Your task to perform on an android device: Turn off the flashlight Image 0: 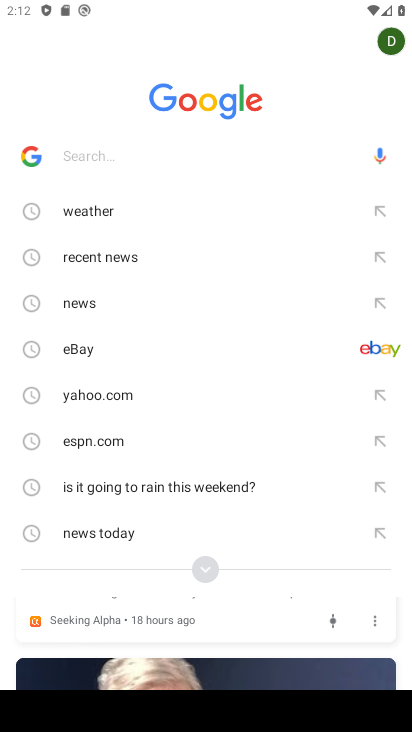
Step 0: press home button
Your task to perform on an android device: Turn off the flashlight Image 1: 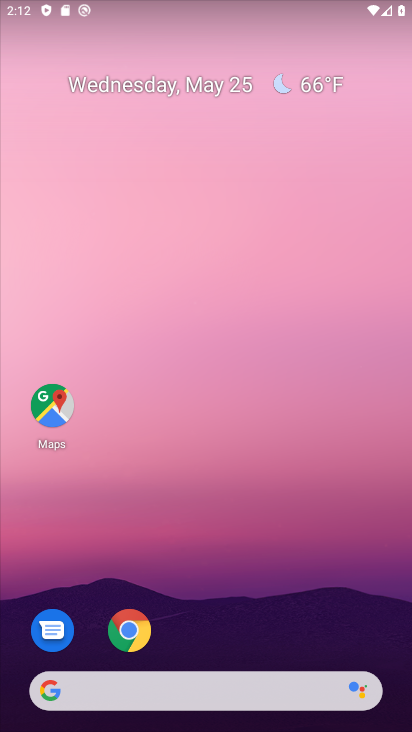
Step 1: drag from (212, 504) to (281, 77)
Your task to perform on an android device: Turn off the flashlight Image 2: 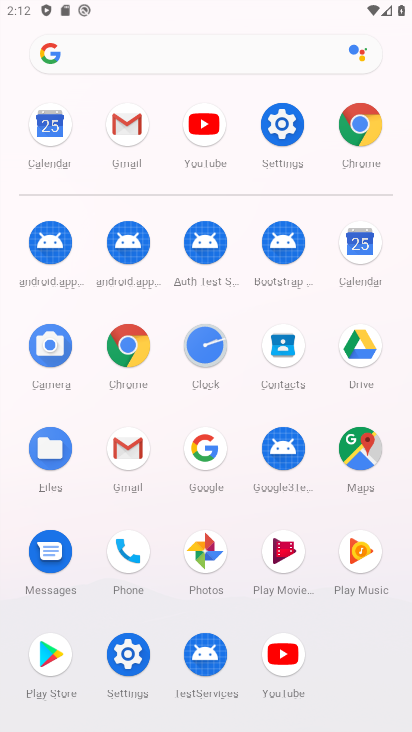
Step 2: click (280, 127)
Your task to perform on an android device: Turn off the flashlight Image 3: 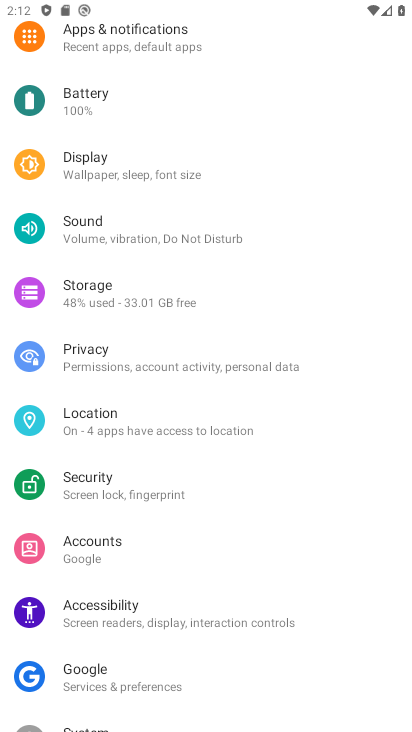
Step 3: drag from (161, 106) to (199, 627)
Your task to perform on an android device: Turn off the flashlight Image 4: 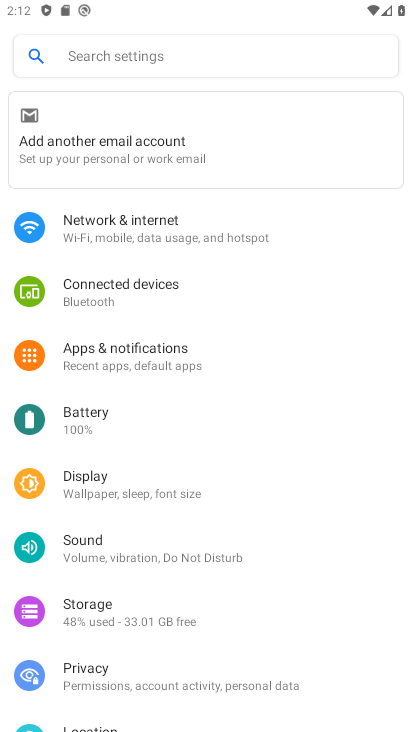
Step 4: click (119, 52)
Your task to perform on an android device: Turn off the flashlight Image 5: 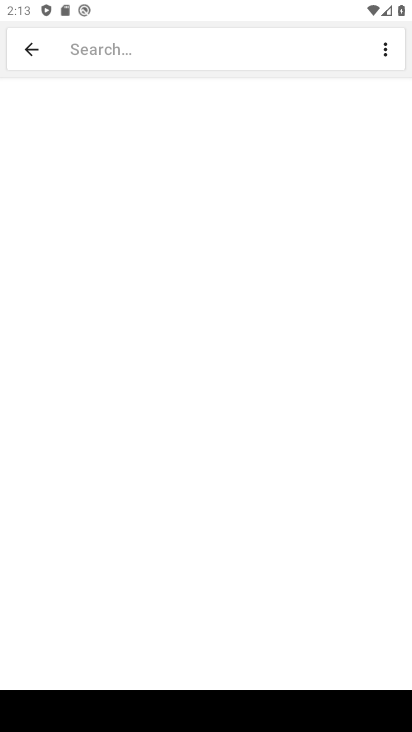
Step 5: type "flashlight"
Your task to perform on an android device: Turn off the flashlight Image 6: 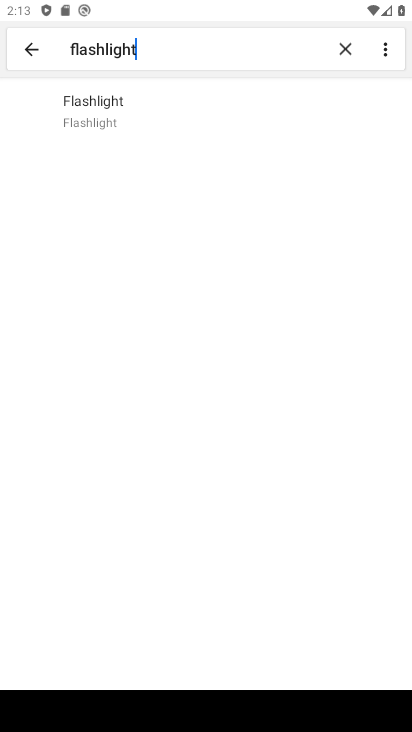
Step 6: click (66, 105)
Your task to perform on an android device: Turn off the flashlight Image 7: 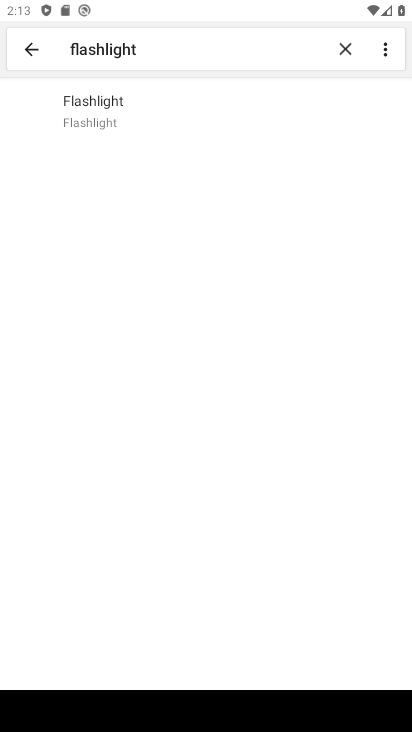
Step 7: task complete